Your task to perform on an android device: open a bookmark in the chrome app Image 0: 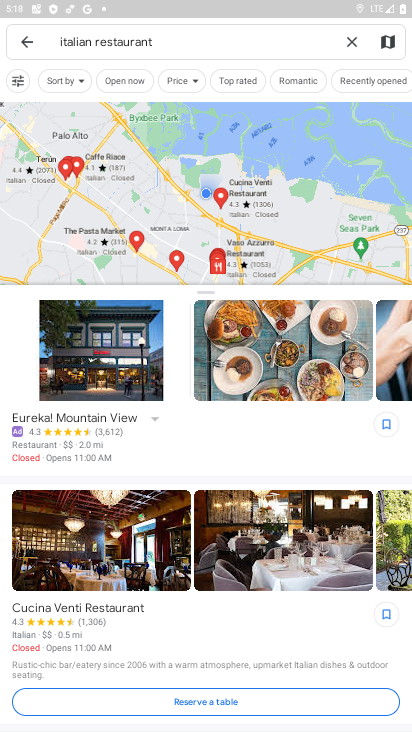
Step 0: press home button
Your task to perform on an android device: open a bookmark in the chrome app Image 1: 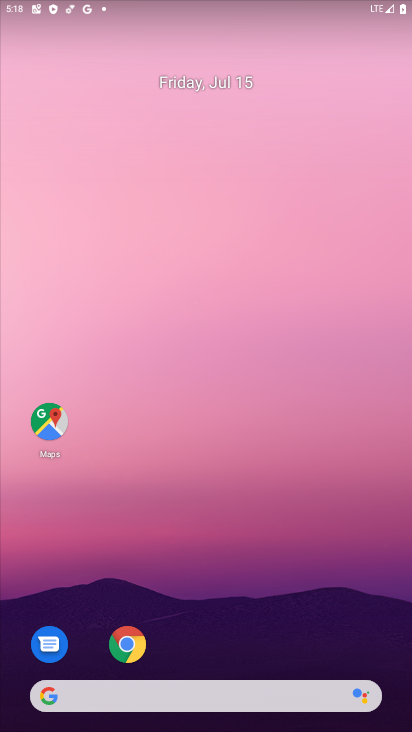
Step 1: click (127, 642)
Your task to perform on an android device: open a bookmark in the chrome app Image 2: 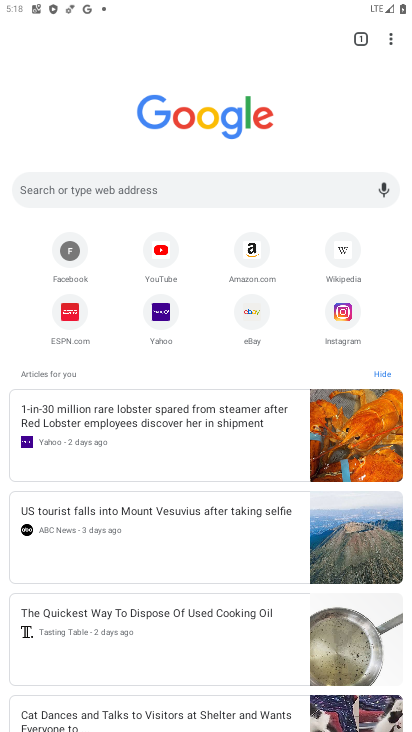
Step 2: click (392, 50)
Your task to perform on an android device: open a bookmark in the chrome app Image 3: 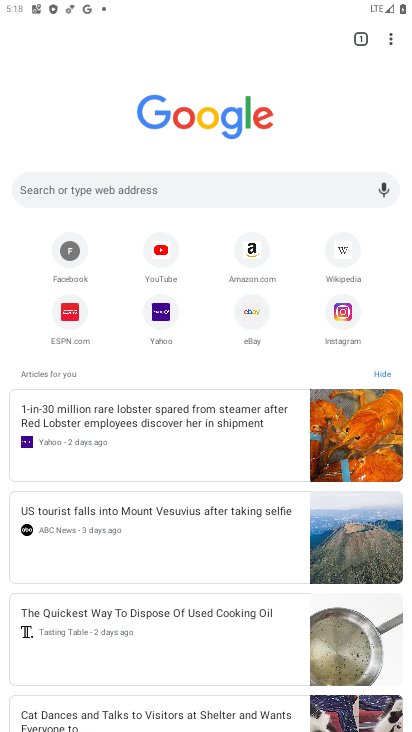
Step 3: click (391, 42)
Your task to perform on an android device: open a bookmark in the chrome app Image 4: 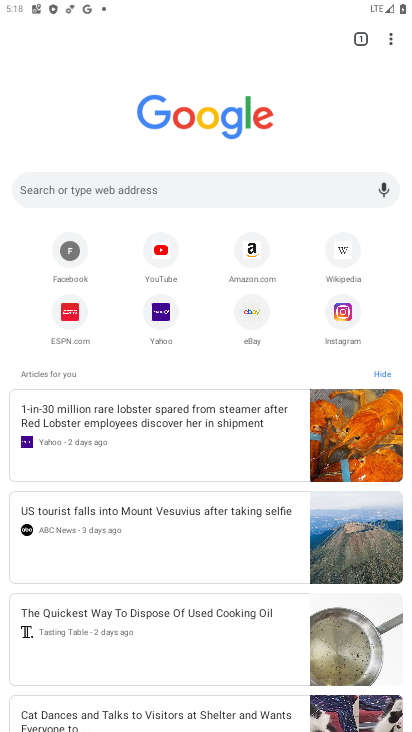
Step 4: click (388, 35)
Your task to perform on an android device: open a bookmark in the chrome app Image 5: 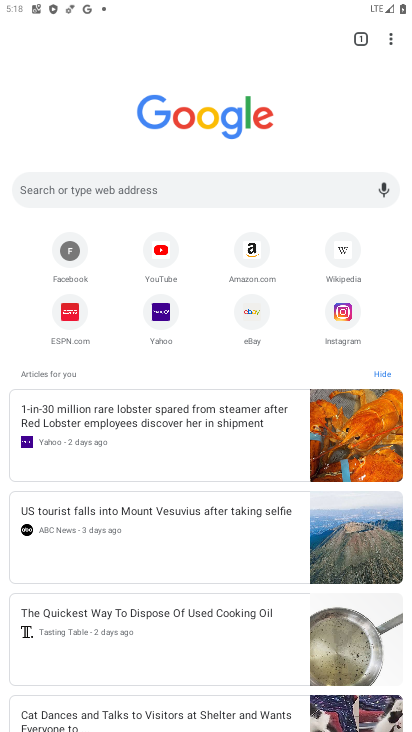
Step 5: click (390, 42)
Your task to perform on an android device: open a bookmark in the chrome app Image 6: 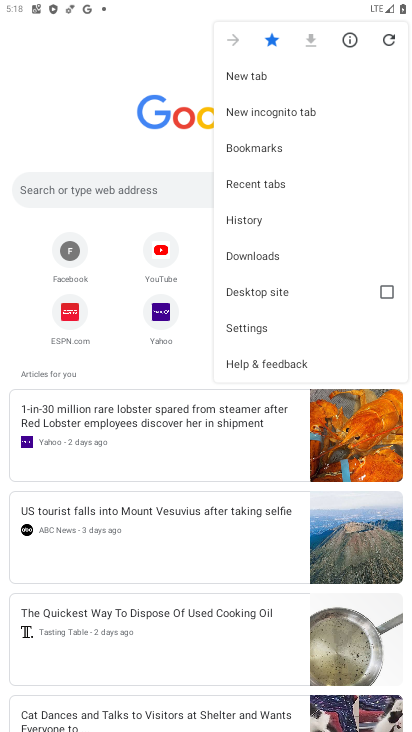
Step 6: click (273, 149)
Your task to perform on an android device: open a bookmark in the chrome app Image 7: 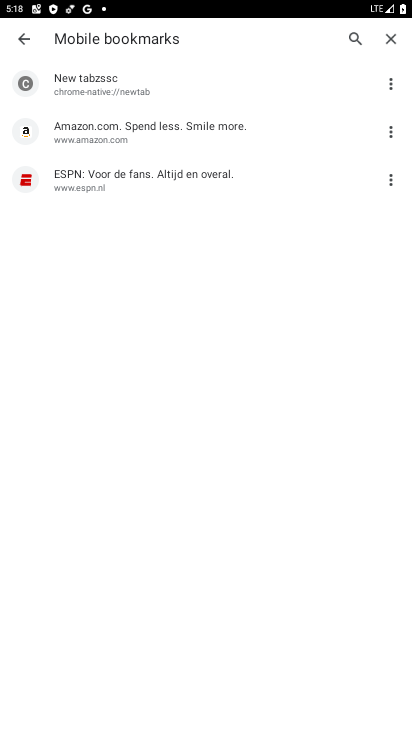
Step 7: task complete